Your task to perform on an android device: turn on location history Image 0: 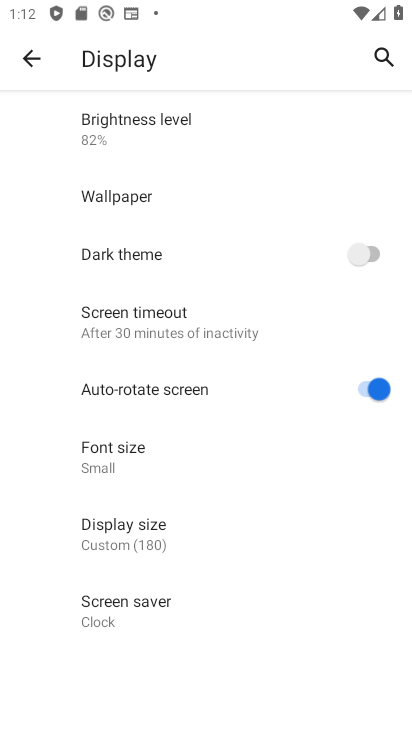
Step 0: press home button
Your task to perform on an android device: turn on location history Image 1: 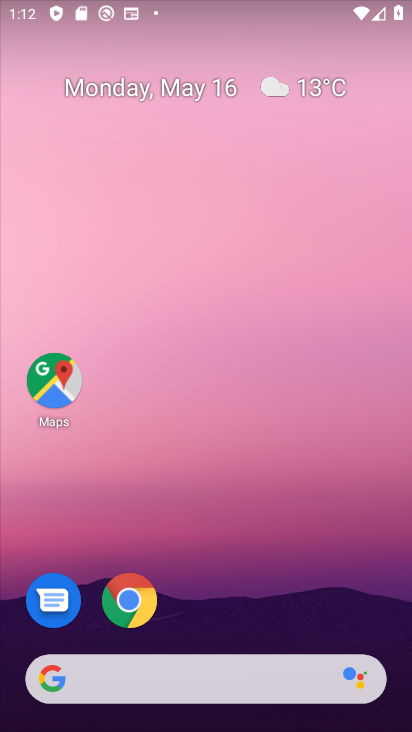
Step 1: drag from (199, 520) to (122, 45)
Your task to perform on an android device: turn on location history Image 2: 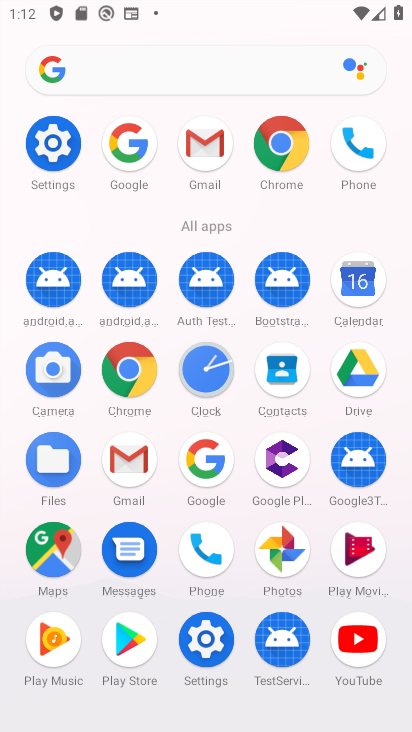
Step 2: click (54, 148)
Your task to perform on an android device: turn on location history Image 3: 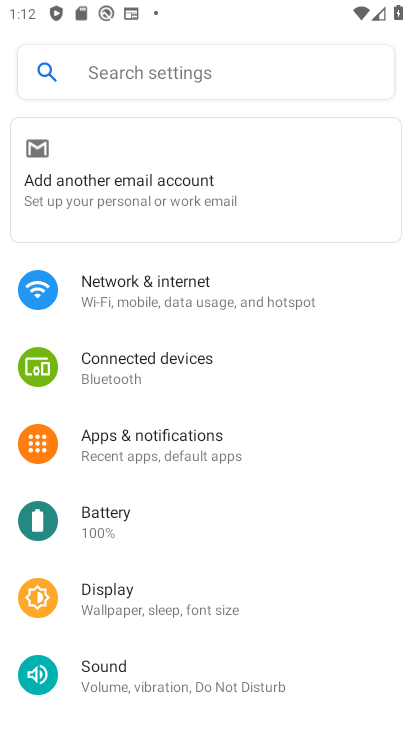
Step 3: drag from (118, 665) to (108, 150)
Your task to perform on an android device: turn on location history Image 4: 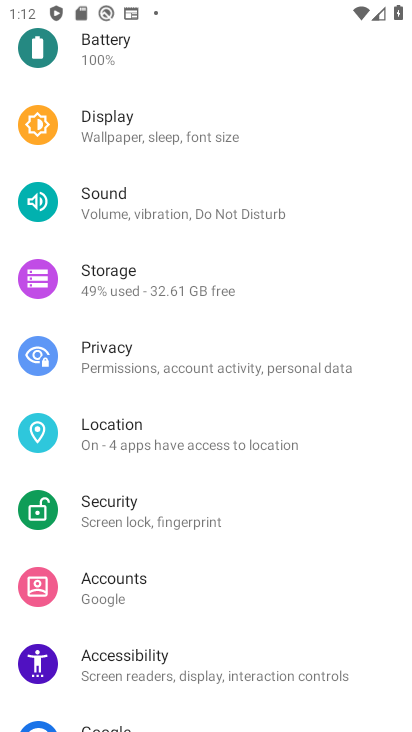
Step 4: click (125, 424)
Your task to perform on an android device: turn on location history Image 5: 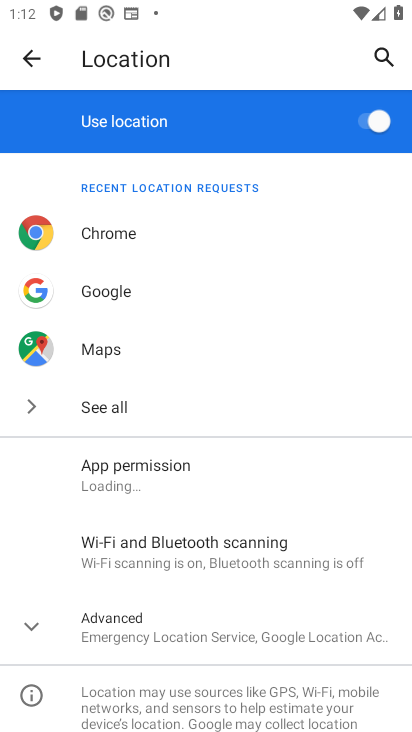
Step 5: click (137, 627)
Your task to perform on an android device: turn on location history Image 6: 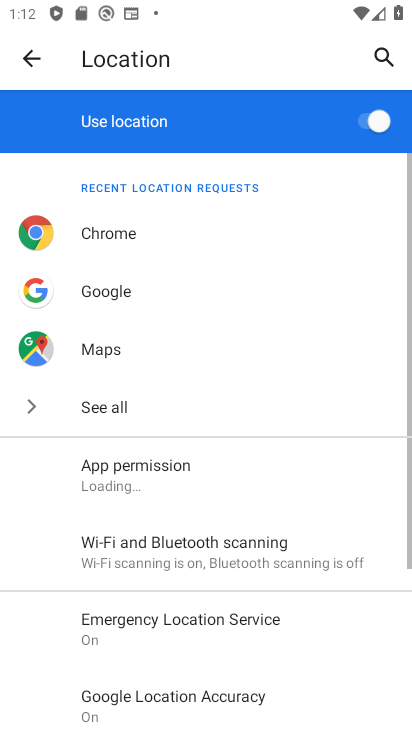
Step 6: task complete